Your task to perform on an android device: Search for vegetarian restaurants on Maps Image 0: 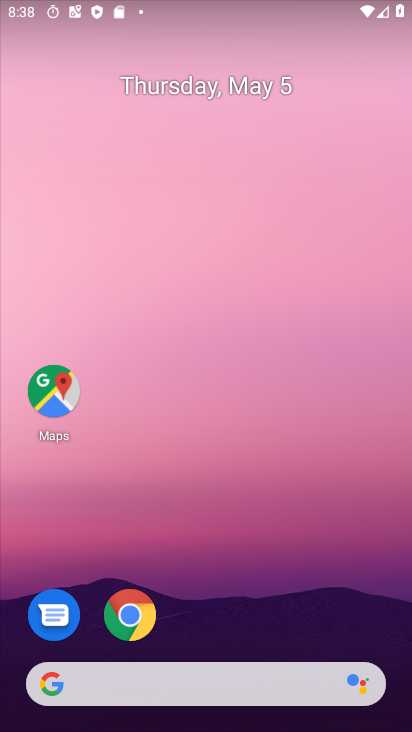
Step 0: click (64, 380)
Your task to perform on an android device: Search for vegetarian restaurants on Maps Image 1: 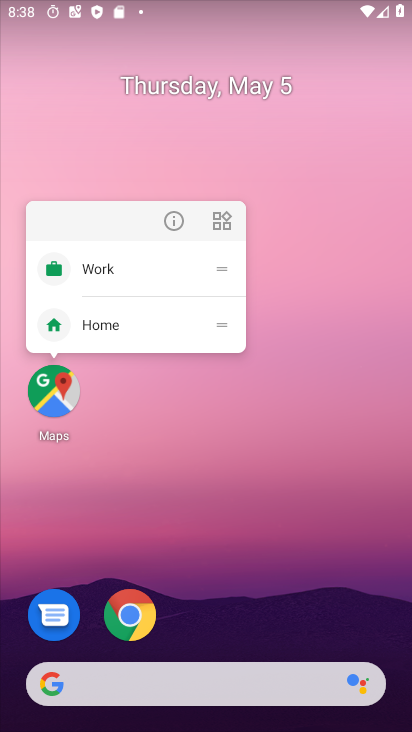
Step 1: click (175, 219)
Your task to perform on an android device: Search for vegetarian restaurants on Maps Image 2: 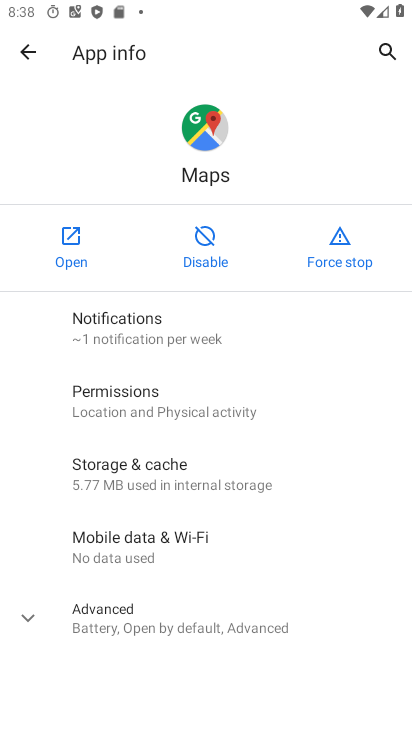
Step 2: click (78, 243)
Your task to perform on an android device: Search for vegetarian restaurants on Maps Image 3: 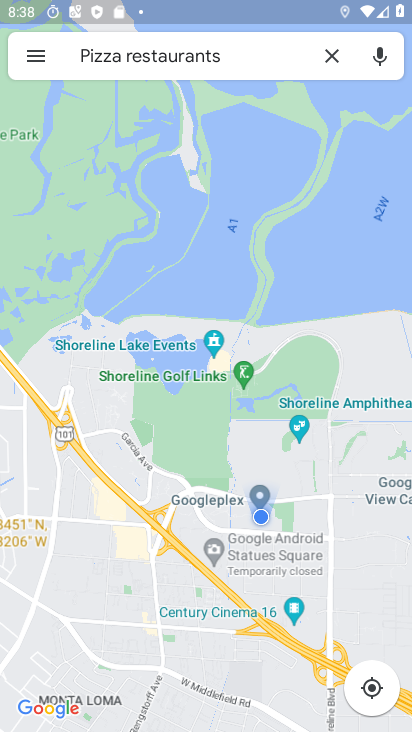
Step 3: click (101, 54)
Your task to perform on an android device: Search for vegetarian restaurants on Maps Image 4: 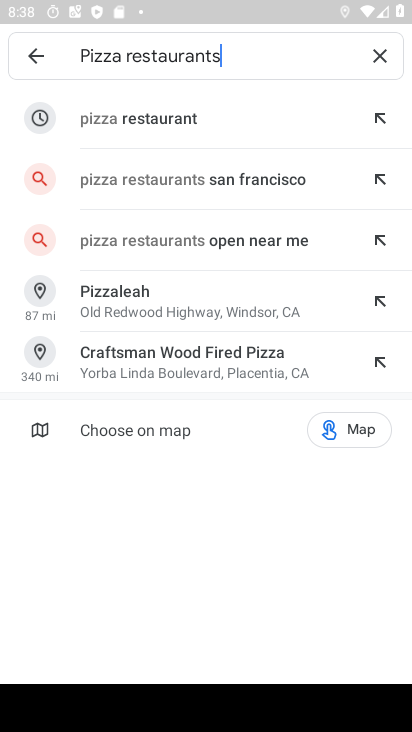
Step 4: click (101, 56)
Your task to perform on an android device: Search for vegetarian restaurants on Maps Image 5: 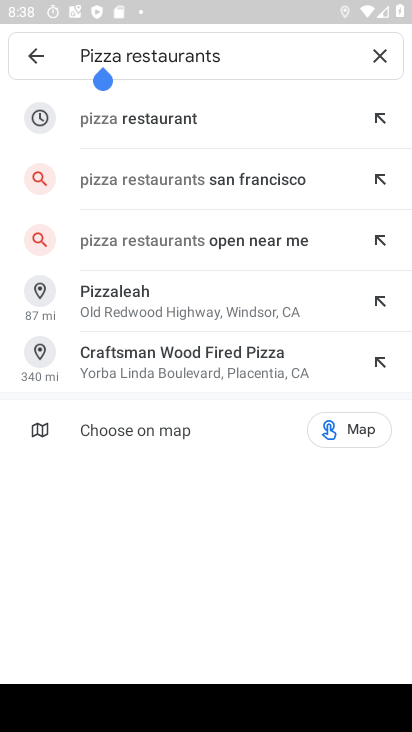
Step 5: click (102, 56)
Your task to perform on an android device: Search for vegetarian restaurants on Maps Image 6: 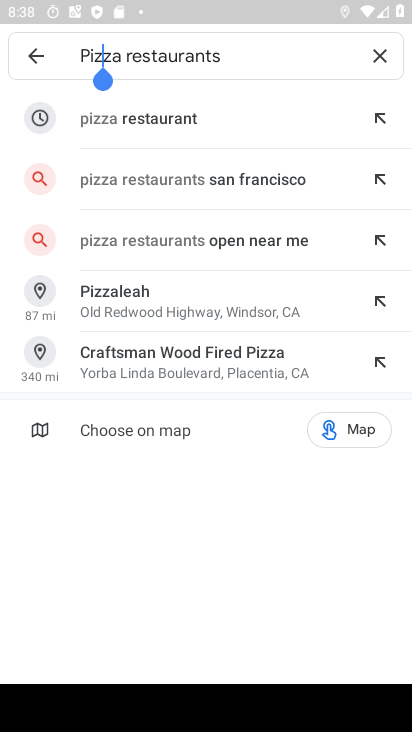
Step 6: click (380, 45)
Your task to perform on an android device: Search for vegetarian restaurants on Maps Image 7: 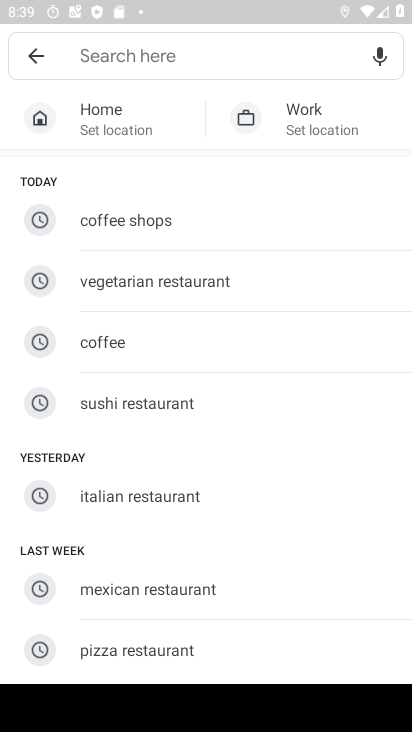
Step 7: type "vegetarian restaurants"
Your task to perform on an android device: Search for vegetarian restaurants on Maps Image 8: 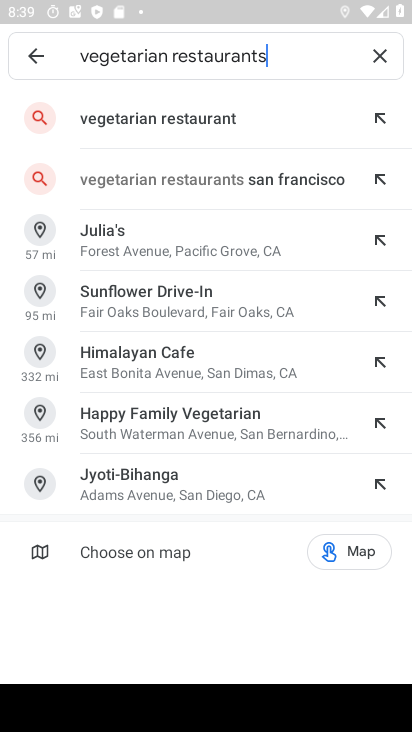
Step 8: click (172, 116)
Your task to perform on an android device: Search for vegetarian restaurants on Maps Image 9: 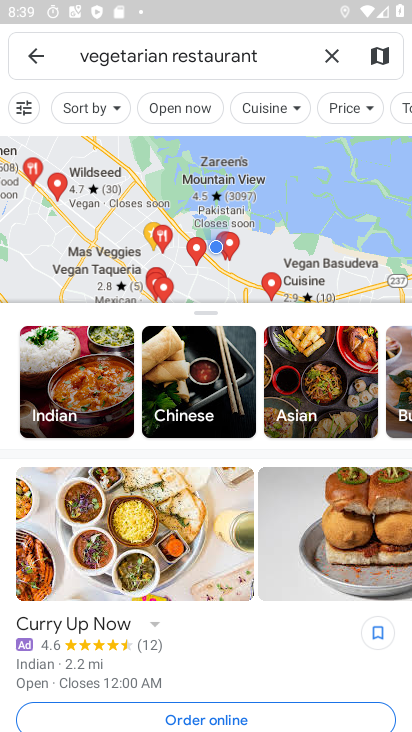
Step 9: task complete